Your task to perform on an android device: see creations saved in the google photos Image 0: 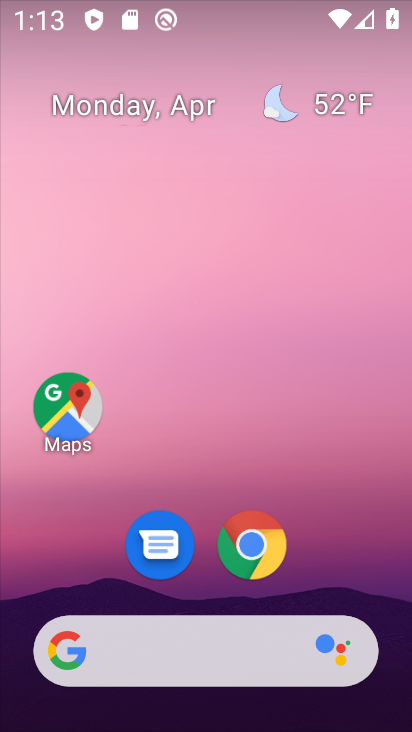
Step 0: drag from (214, 709) to (208, 133)
Your task to perform on an android device: see creations saved in the google photos Image 1: 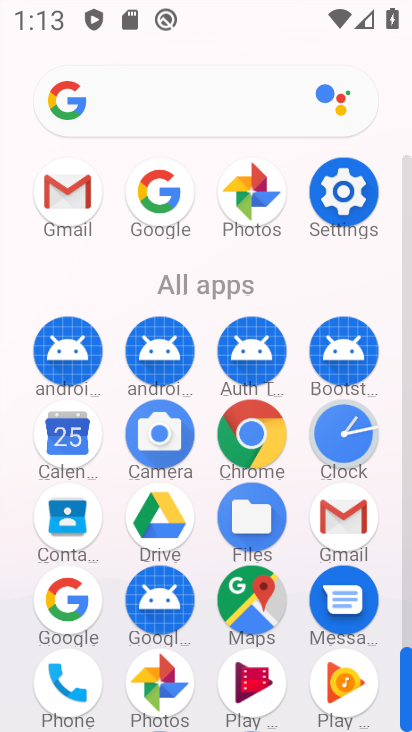
Step 1: click (158, 682)
Your task to perform on an android device: see creations saved in the google photos Image 2: 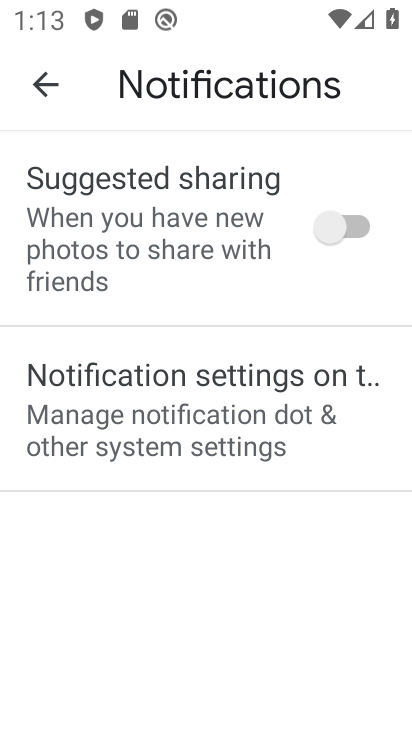
Step 2: click (47, 82)
Your task to perform on an android device: see creations saved in the google photos Image 3: 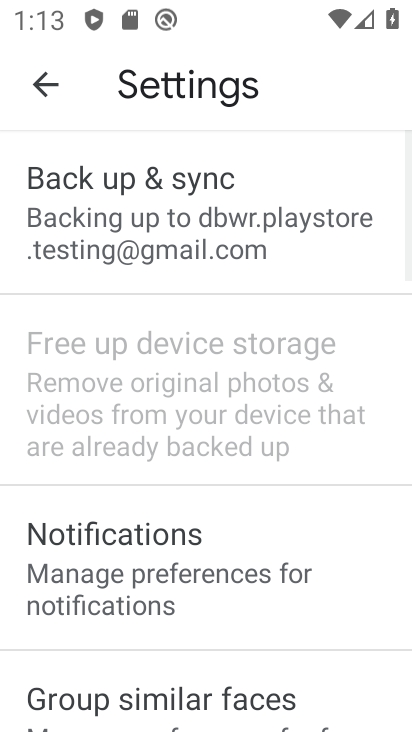
Step 3: click (47, 82)
Your task to perform on an android device: see creations saved in the google photos Image 4: 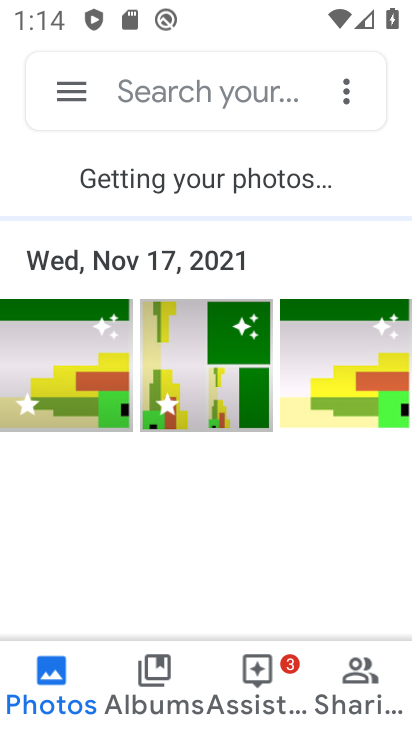
Step 4: click (228, 86)
Your task to perform on an android device: see creations saved in the google photos Image 5: 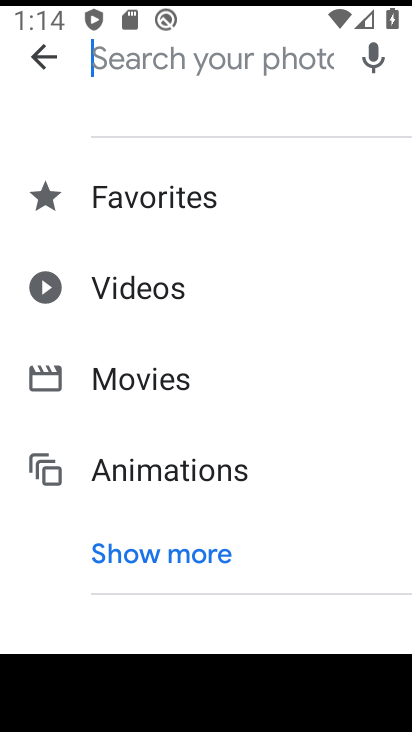
Step 5: click (141, 551)
Your task to perform on an android device: see creations saved in the google photos Image 6: 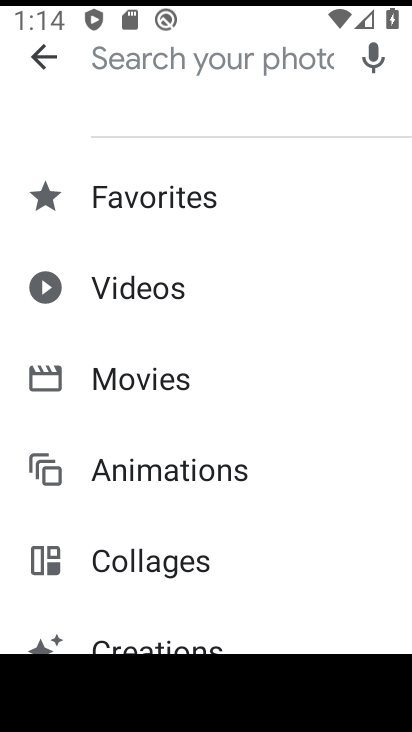
Step 6: click (144, 643)
Your task to perform on an android device: see creations saved in the google photos Image 7: 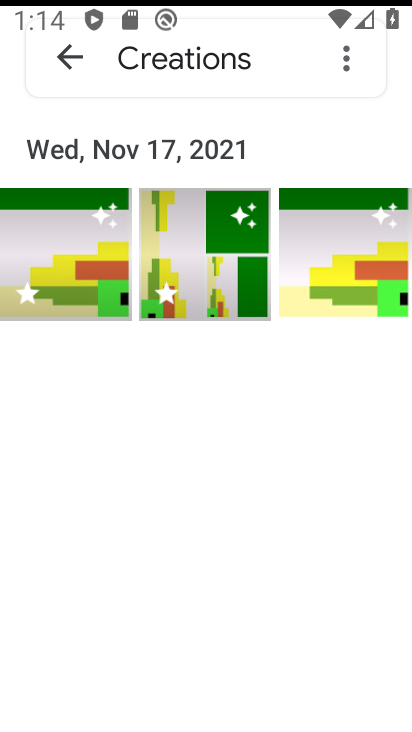
Step 7: task complete